Your task to perform on an android device: Open the web browser Image 0: 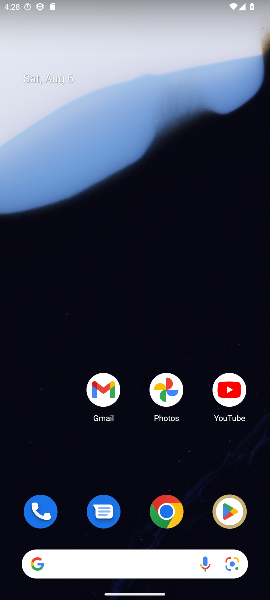
Step 0: click (175, 517)
Your task to perform on an android device: Open the web browser Image 1: 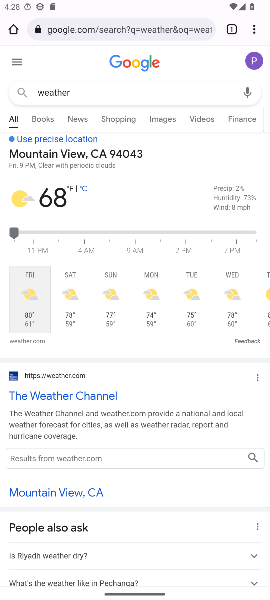
Step 1: task complete